Your task to perform on an android device: Turn on the flashlight Image 0: 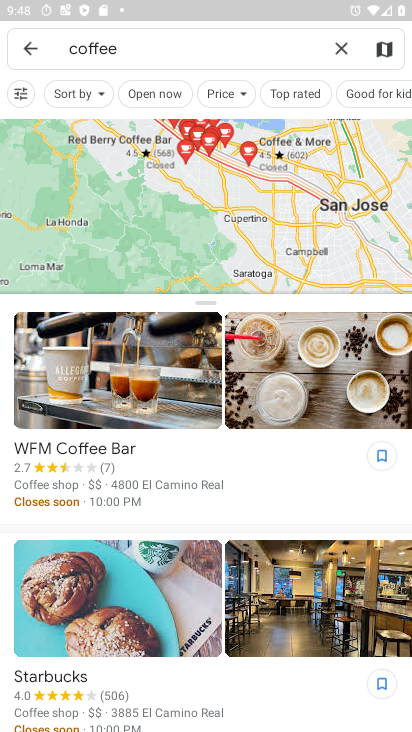
Step 0: press home button
Your task to perform on an android device: Turn on the flashlight Image 1: 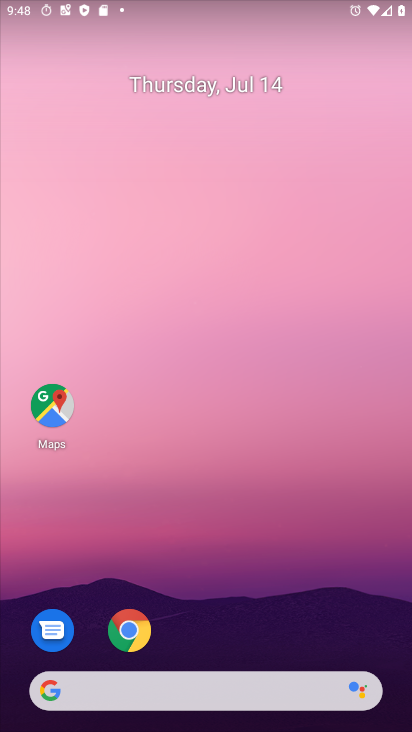
Step 1: drag from (256, 701) to (196, 89)
Your task to perform on an android device: Turn on the flashlight Image 2: 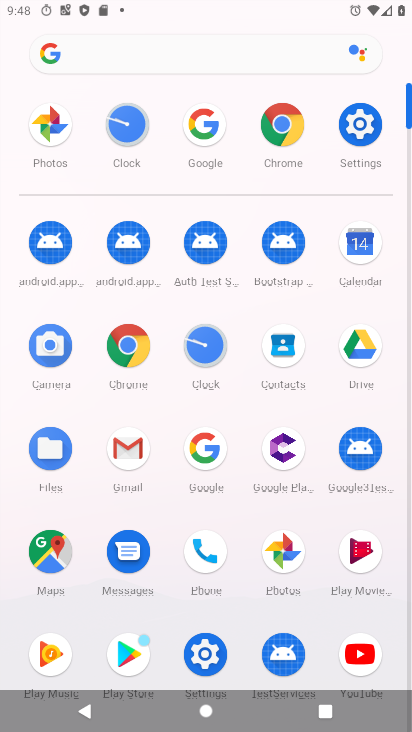
Step 2: click (374, 122)
Your task to perform on an android device: Turn on the flashlight Image 3: 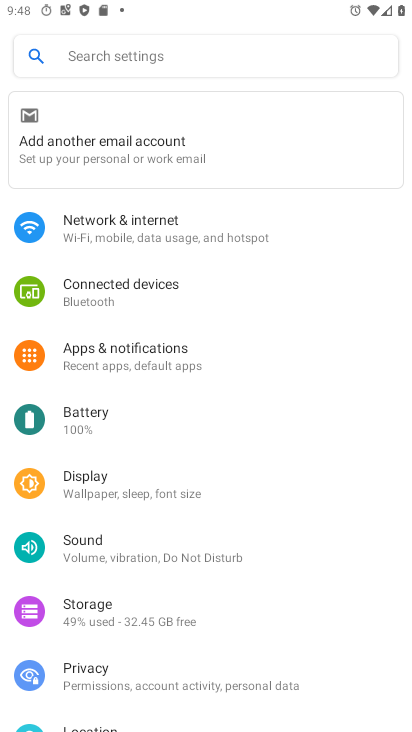
Step 3: task complete